Your task to perform on an android device: Open settings on Google Maps Image 0: 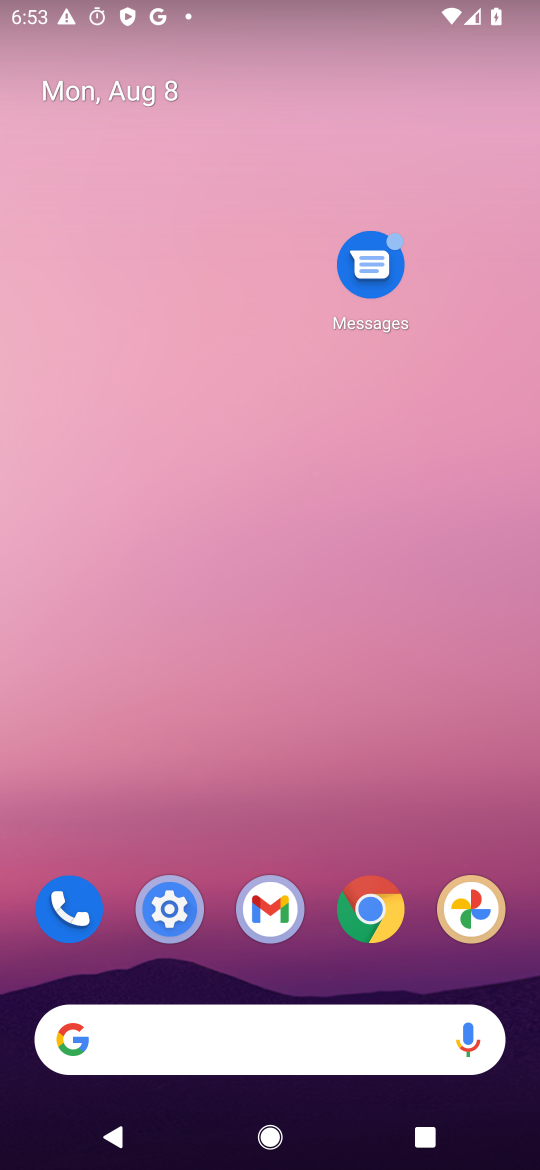
Step 0: drag from (190, 1040) to (388, 157)
Your task to perform on an android device: Open settings on Google Maps Image 1: 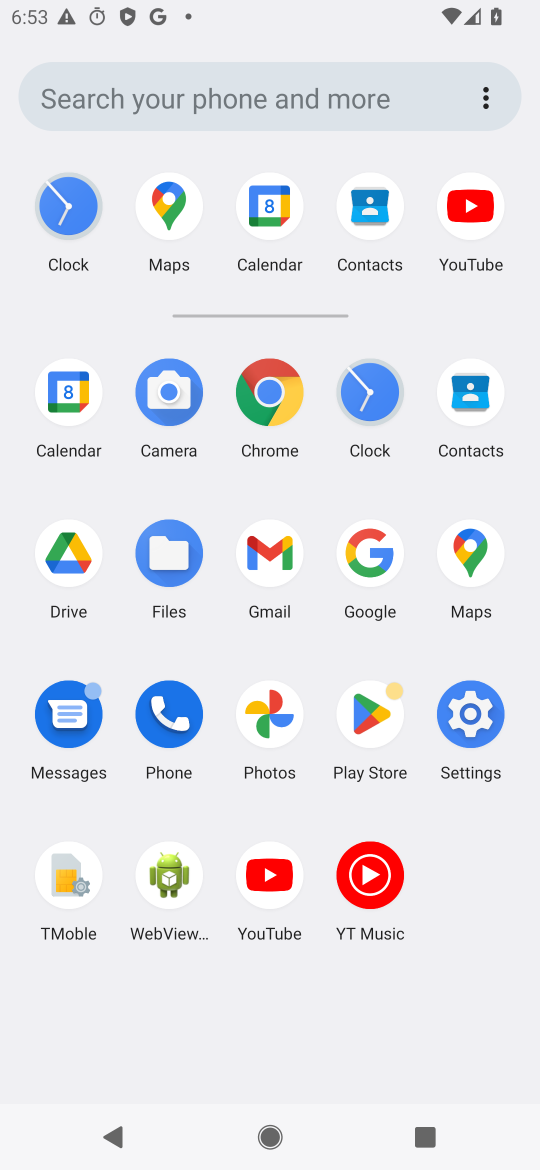
Step 1: click (471, 554)
Your task to perform on an android device: Open settings on Google Maps Image 2: 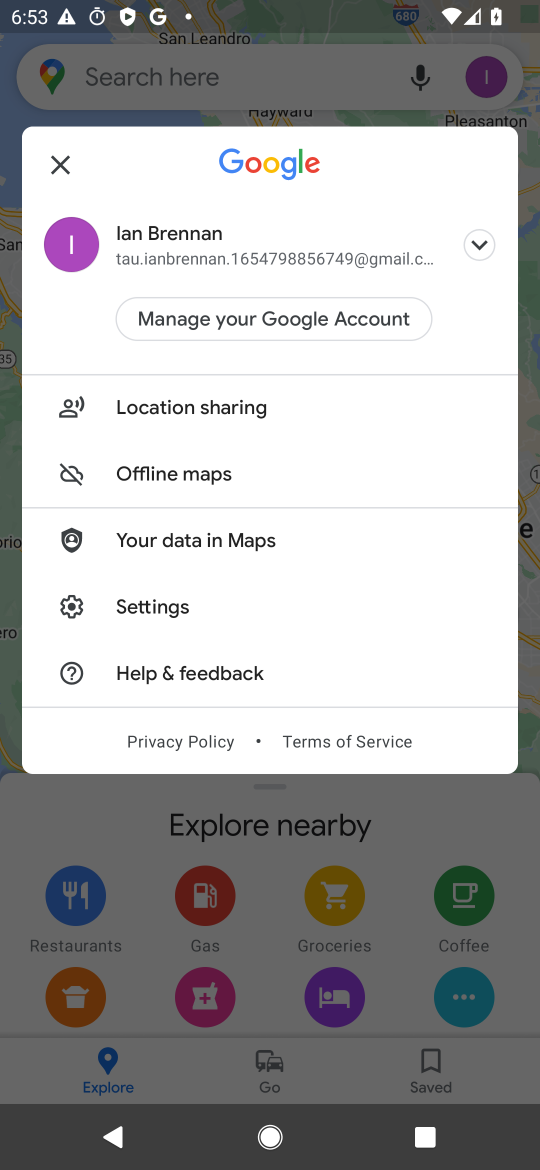
Step 2: click (140, 609)
Your task to perform on an android device: Open settings on Google Maps Image 3: 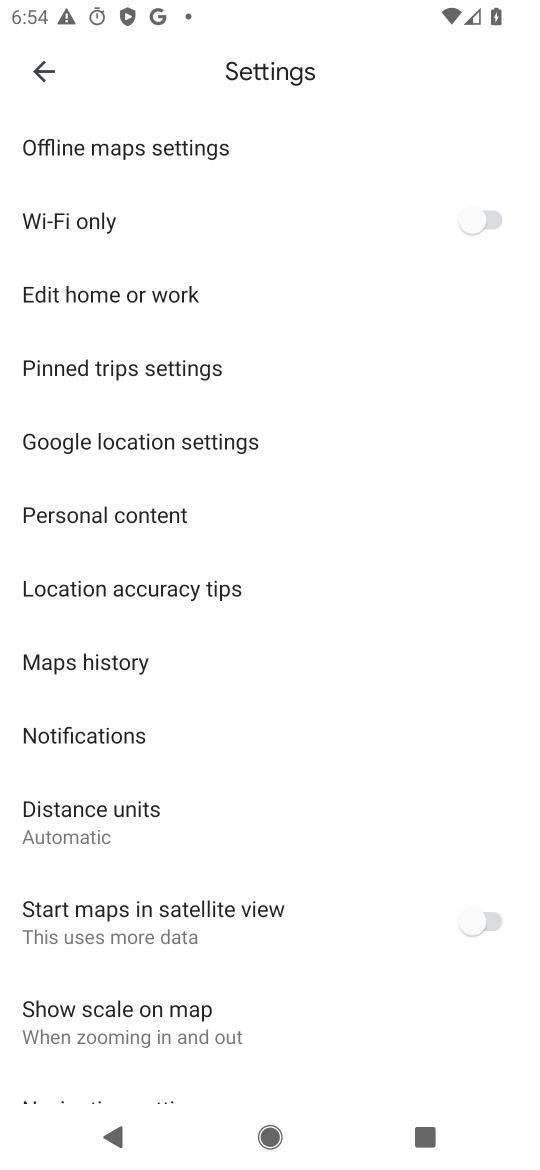
Step 3: task complete